Your task to perform on an android device: Open settings on Google Maps Image 0: 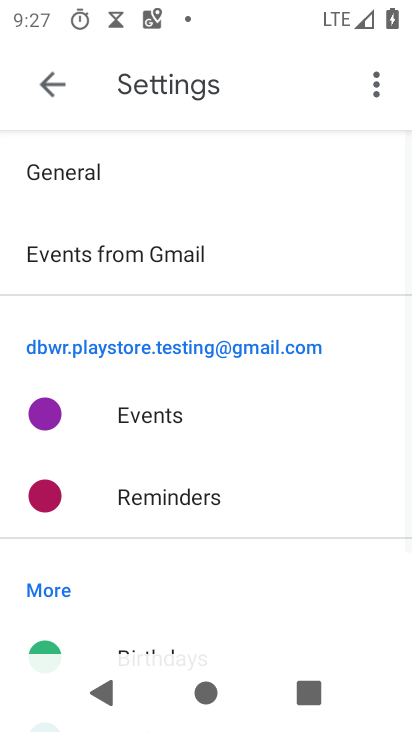
Step 0: press home button
Your task to perform on an android device: Open settings on Google Maps Image 1: 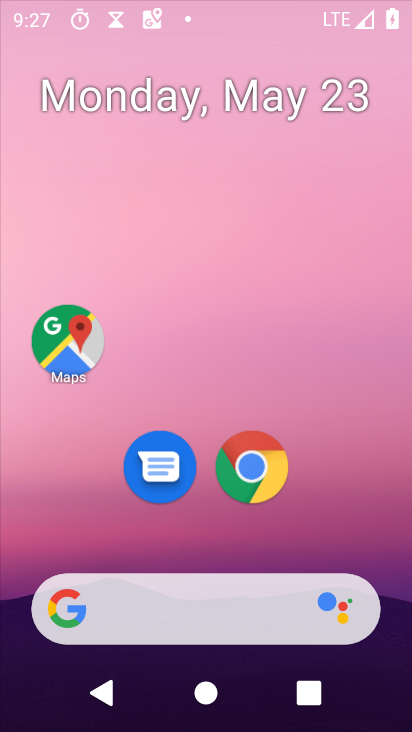
Step 1: click (58, 339)
Your task to perform on an android device: Open settings on Google Maps Image 2: 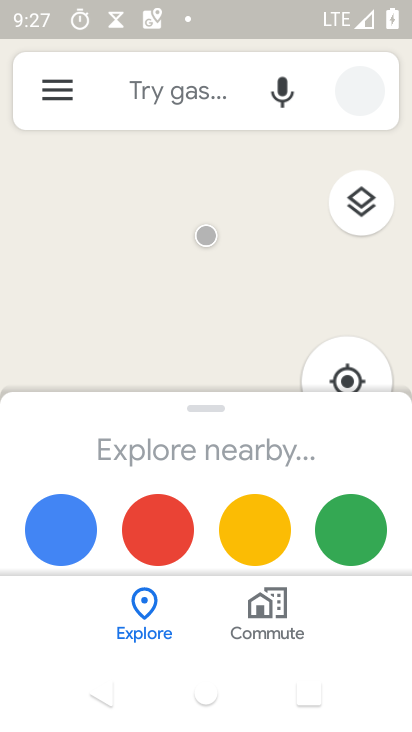
Step 2: click (71, 95)
Your task to perform on an android device: Open settings on Google Maps Image 3: 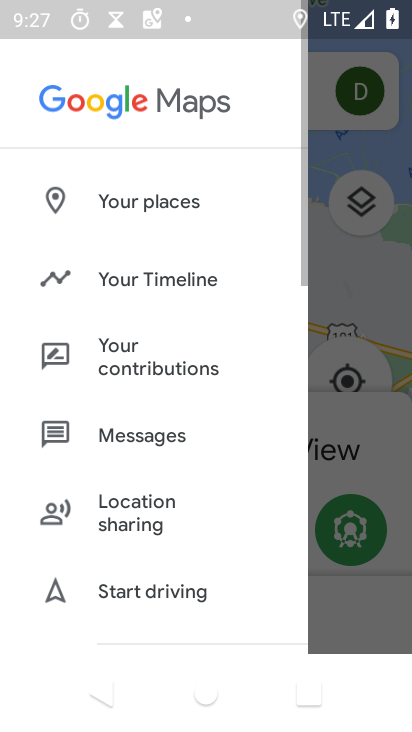
Step 3: drag from (149, 577) to (121, 156)
Your task to perform on an android device: Open settings on Google Maps Image 4: 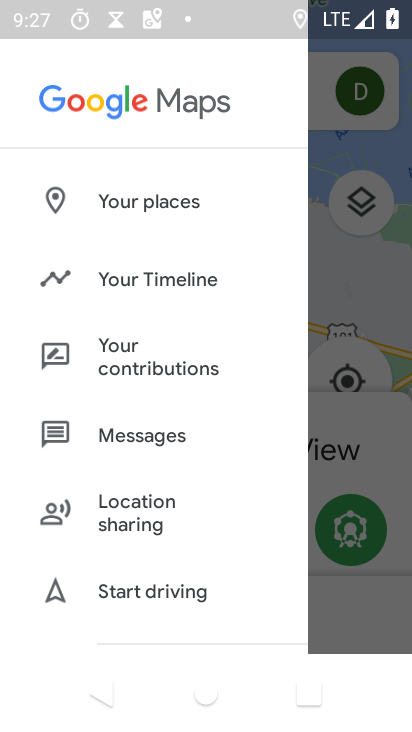
Step 4: drag from (152, 547) to (173, 165)
Your task to perform on an android device: Open settings on Google Maps Image 5: 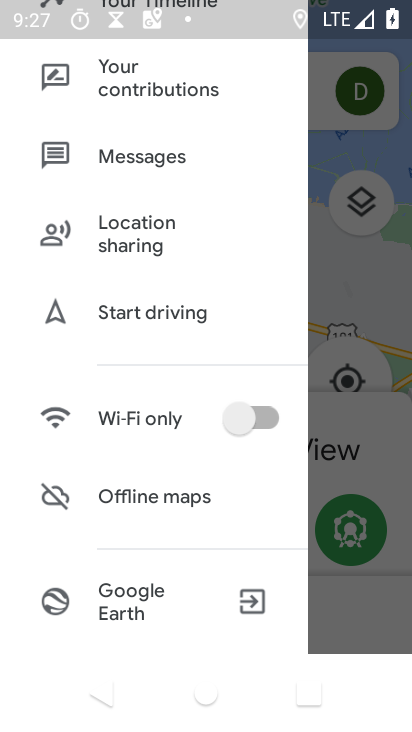
Step 5: drag from (143, 551) to (143, 132)
Your task to perform on an android device: Open settings on Google Maps Image 6: 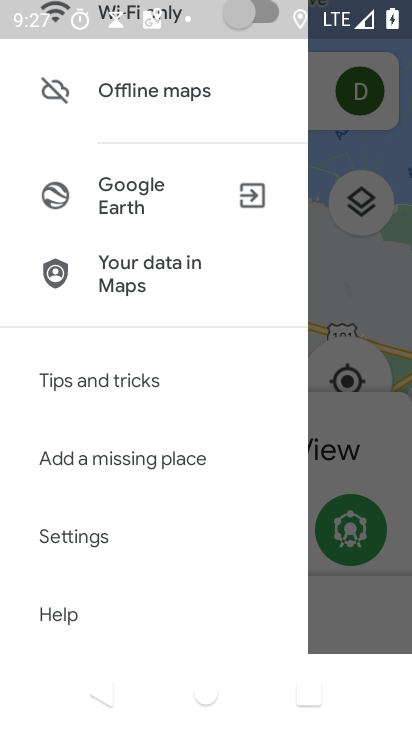
Step 6: click (127, 541)
Your task to perform on an android device: Open settings on Google Maps Image 7: 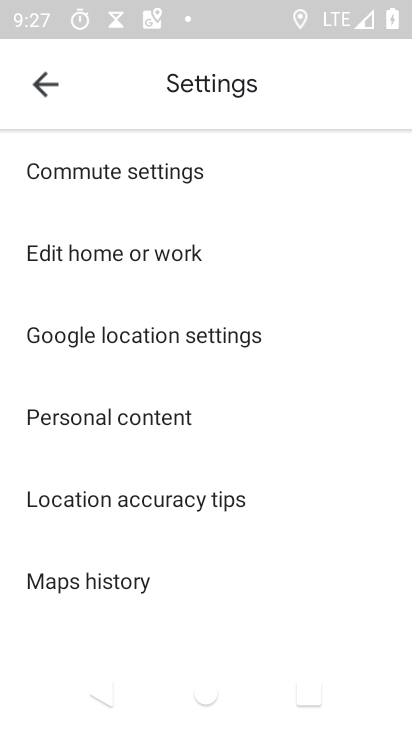
Step 7: task complete